Your task to perform on an android device: open app "Instagram" (install if not already installed), go to login, and select forgot password Image 0: 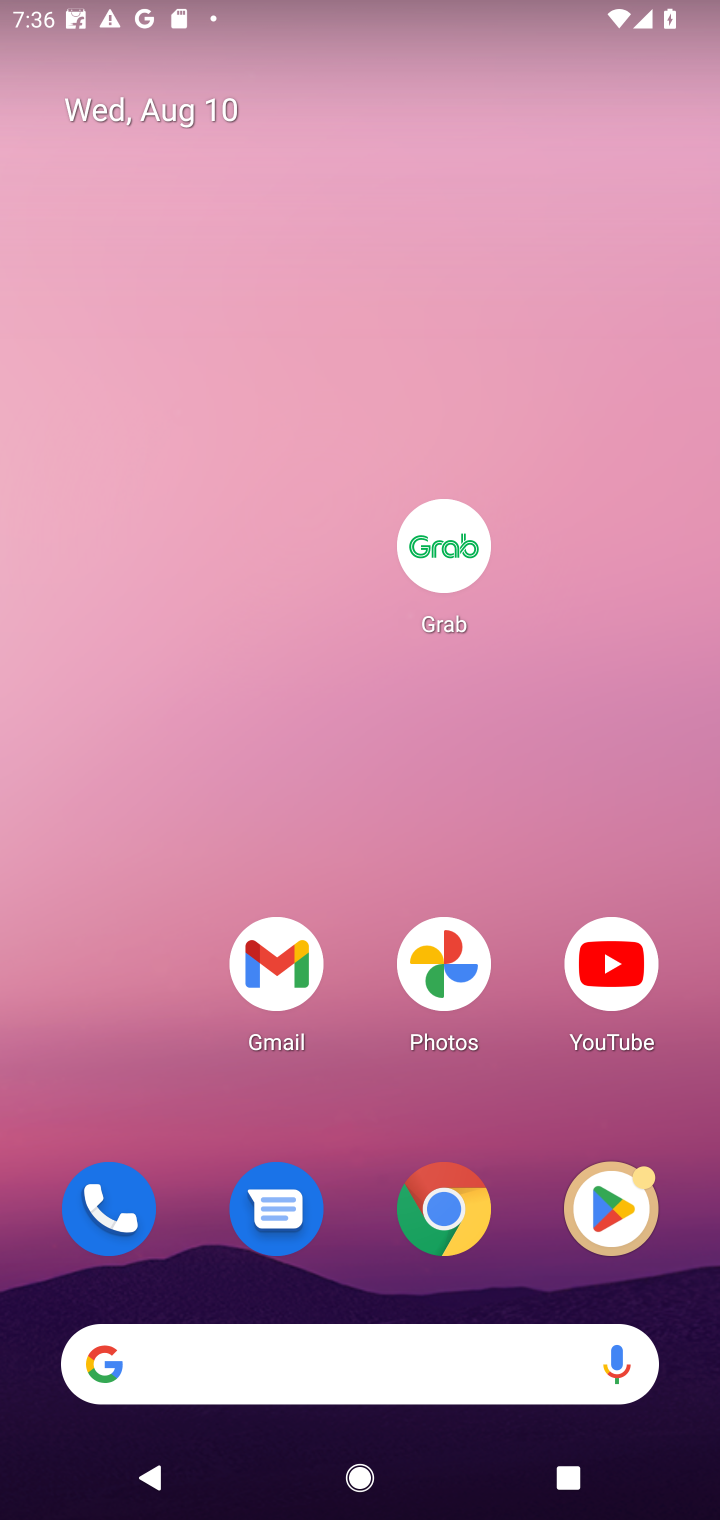
Step 0: drag from (378, 1274) to (400, 173)
Your task to perform on an android device: open app "Instagram" (install if not already installed), go to login, and select forgot password Image 1: 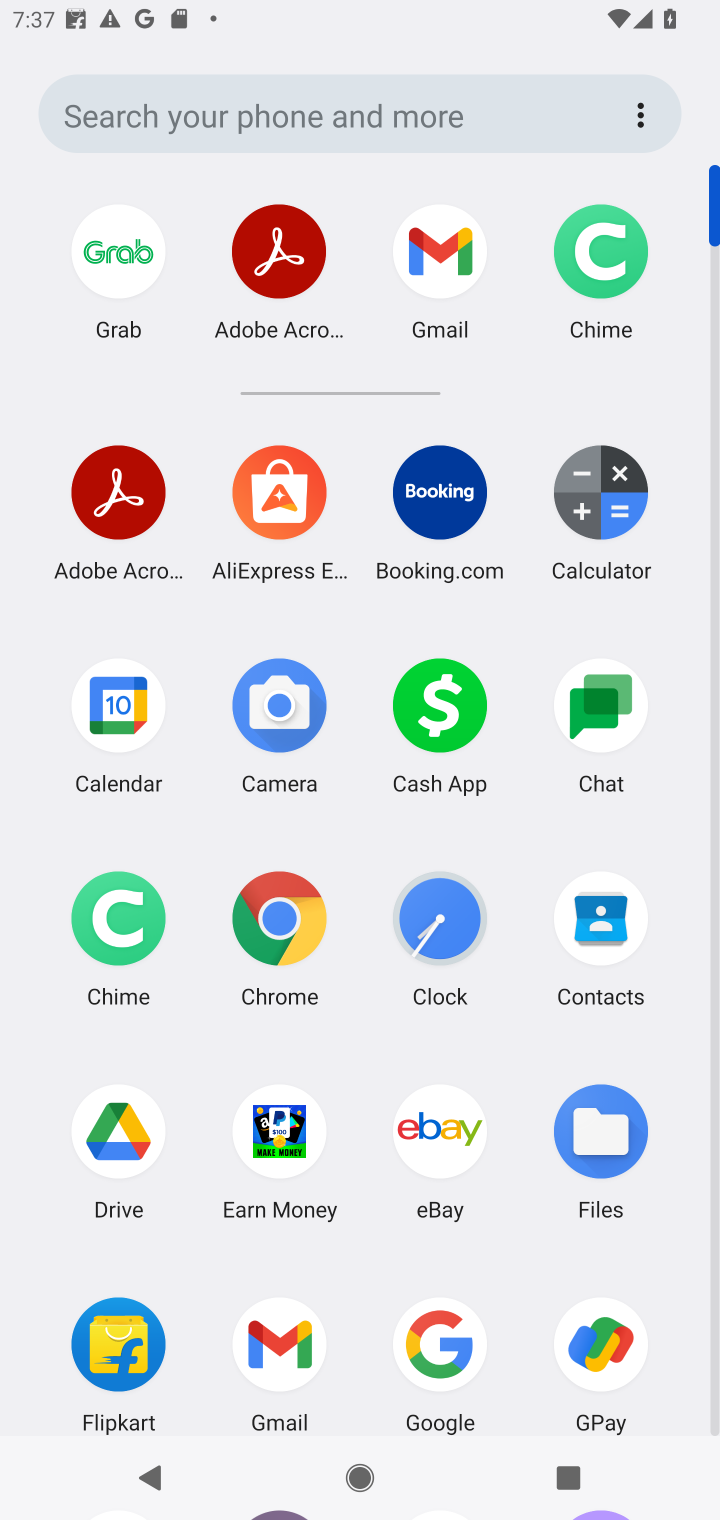
Step 1: click (313, 99)
Your task to perform on an android device: open app "Instagram" (install if not already installed), go to login, and select forgot password Image 2: 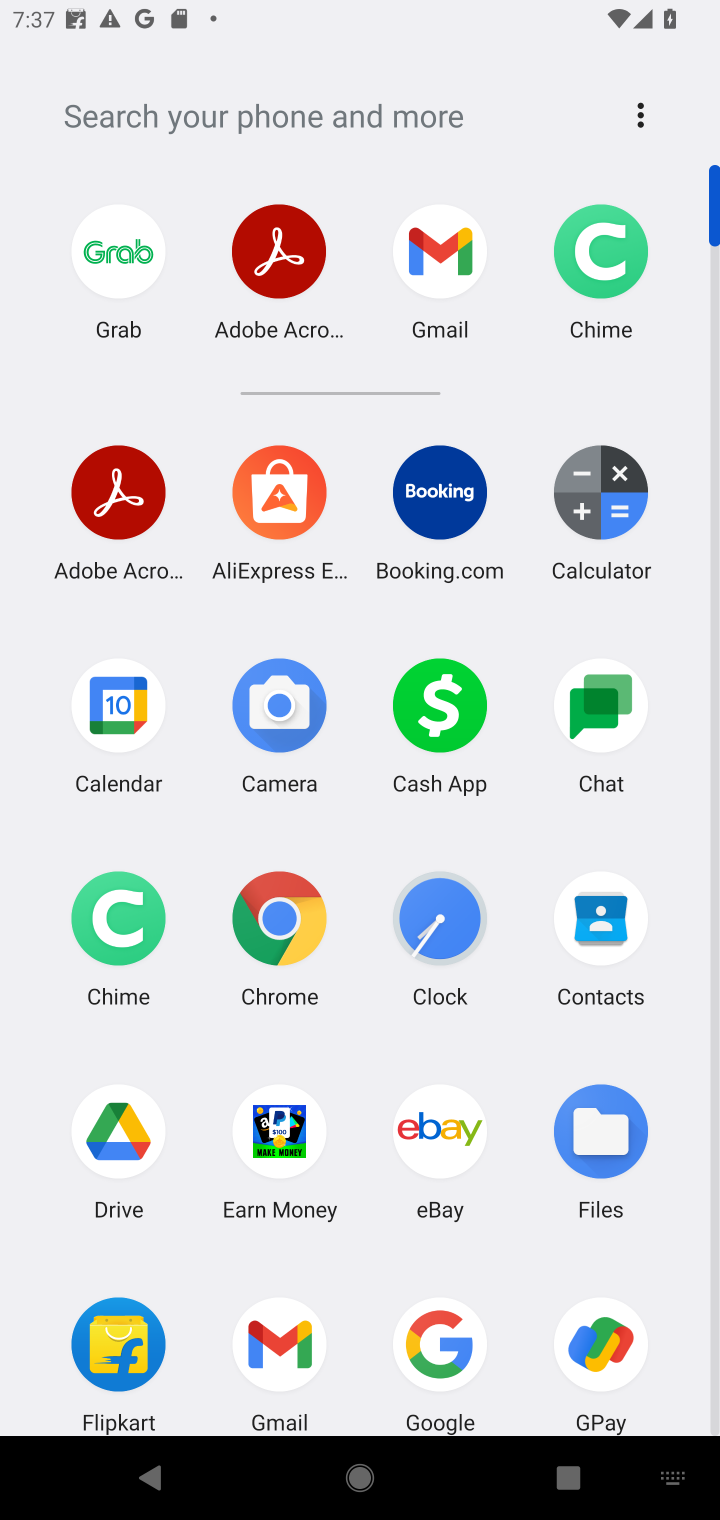
Step 2: press home button
Your task to perform on an android device: open app "Instagram" (install if not already installed), go to login, and select forgot password Image 3: 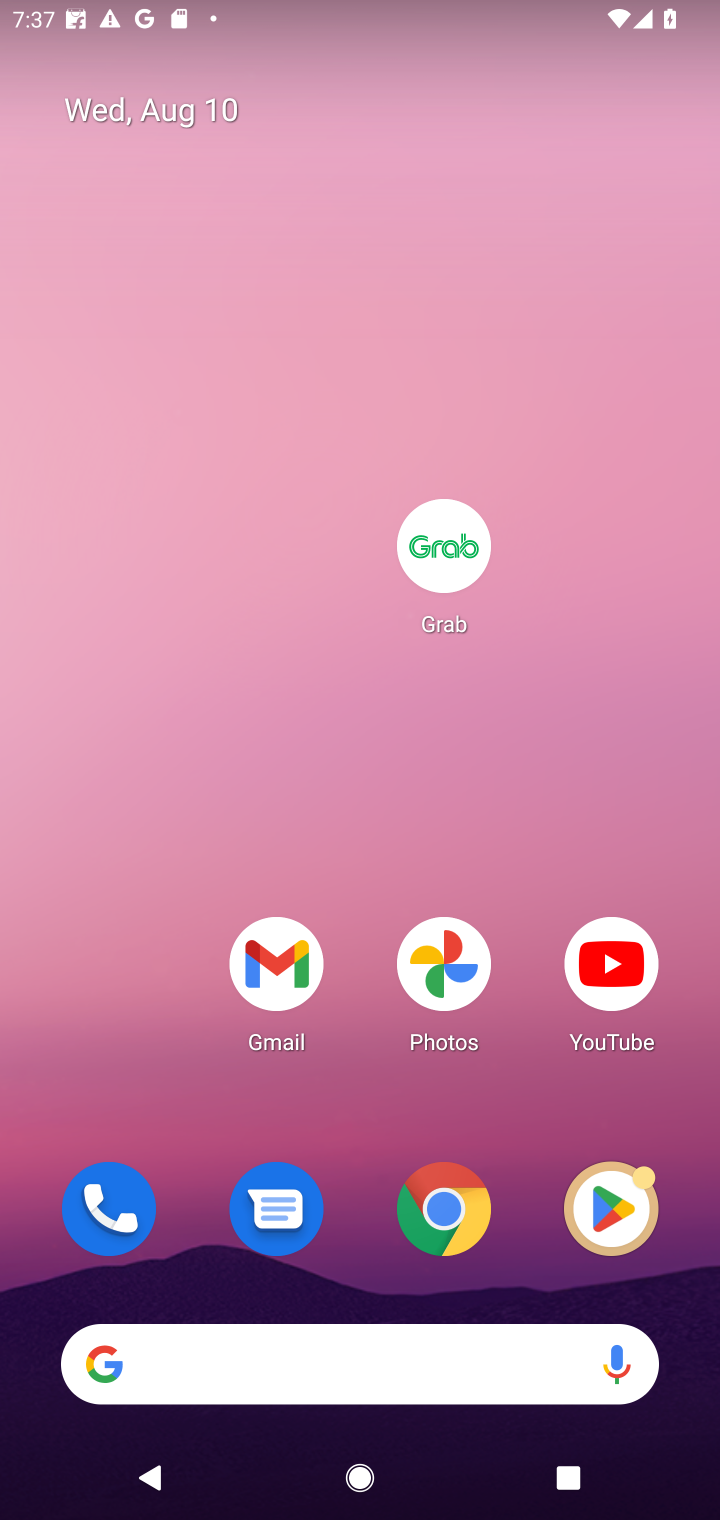
Step 3: click (590, 1215)
Your task to perform on an android device: open app "Instagram" (install if not already installed), go to login, and select forgot password Image 4: 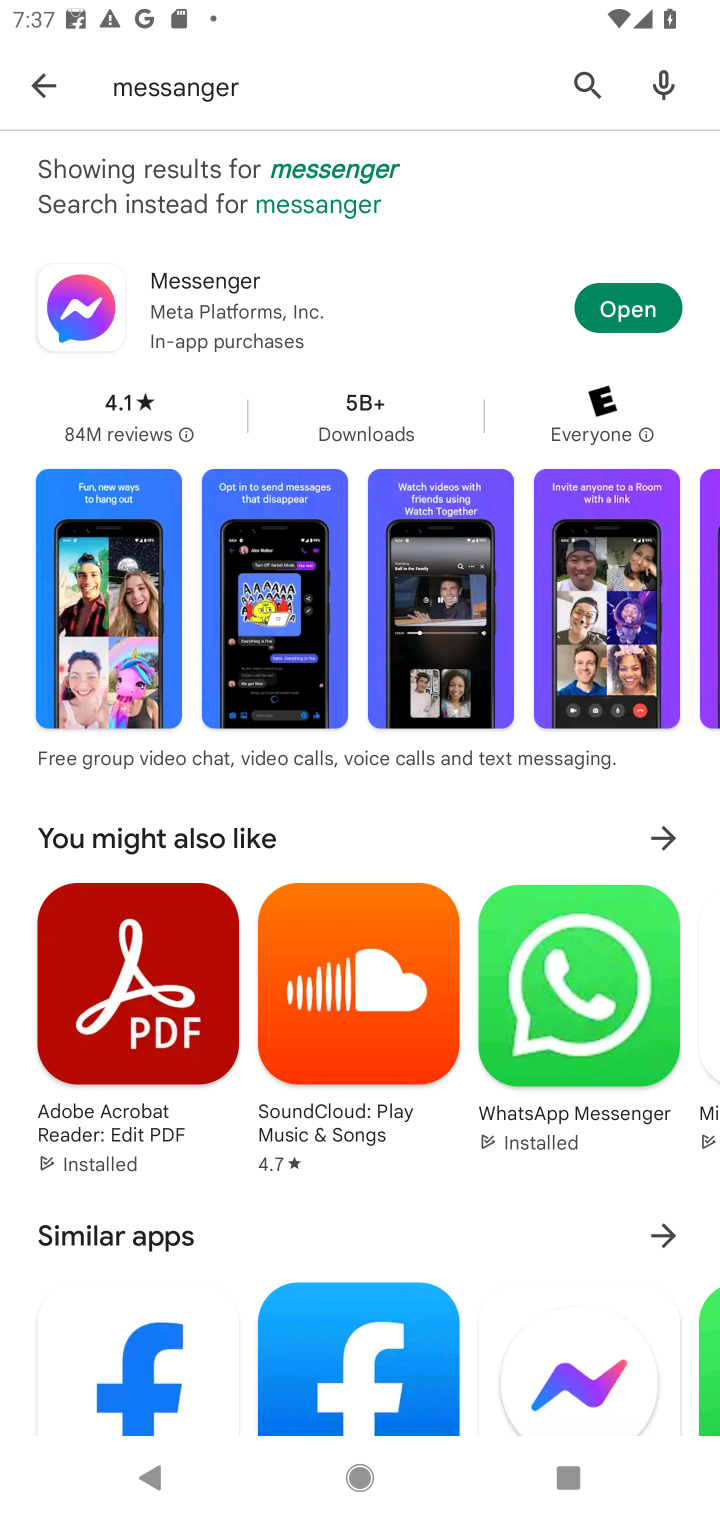
Step 4: click (571, 90)
Your task to perform on an android device: open app "Instagram" (install if not already installed), go to login, and select forgot password Image 5: 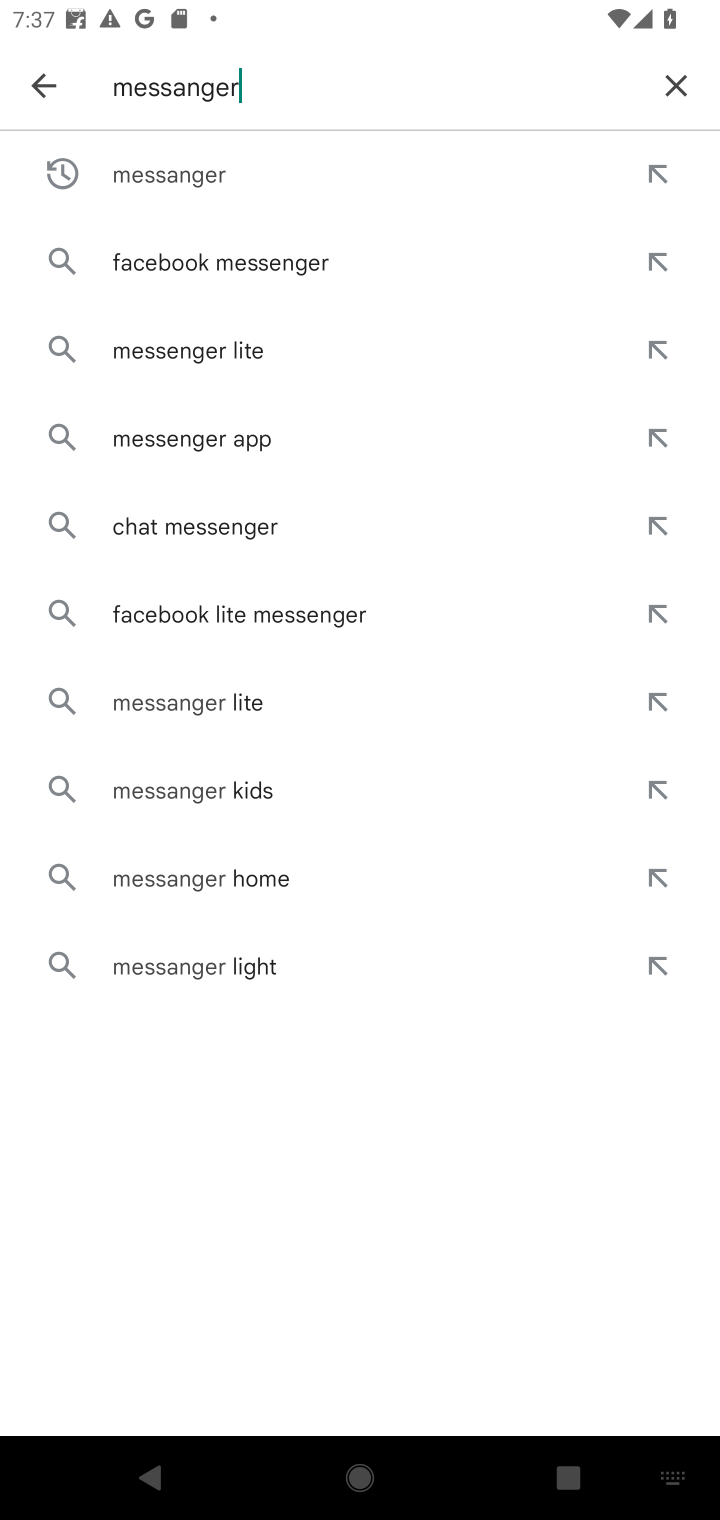
Step 5: click (680, 85)
Your task to perform on an android device: open app "Instagram" (install if not already installed), go to login, and select forgot password Image 6: 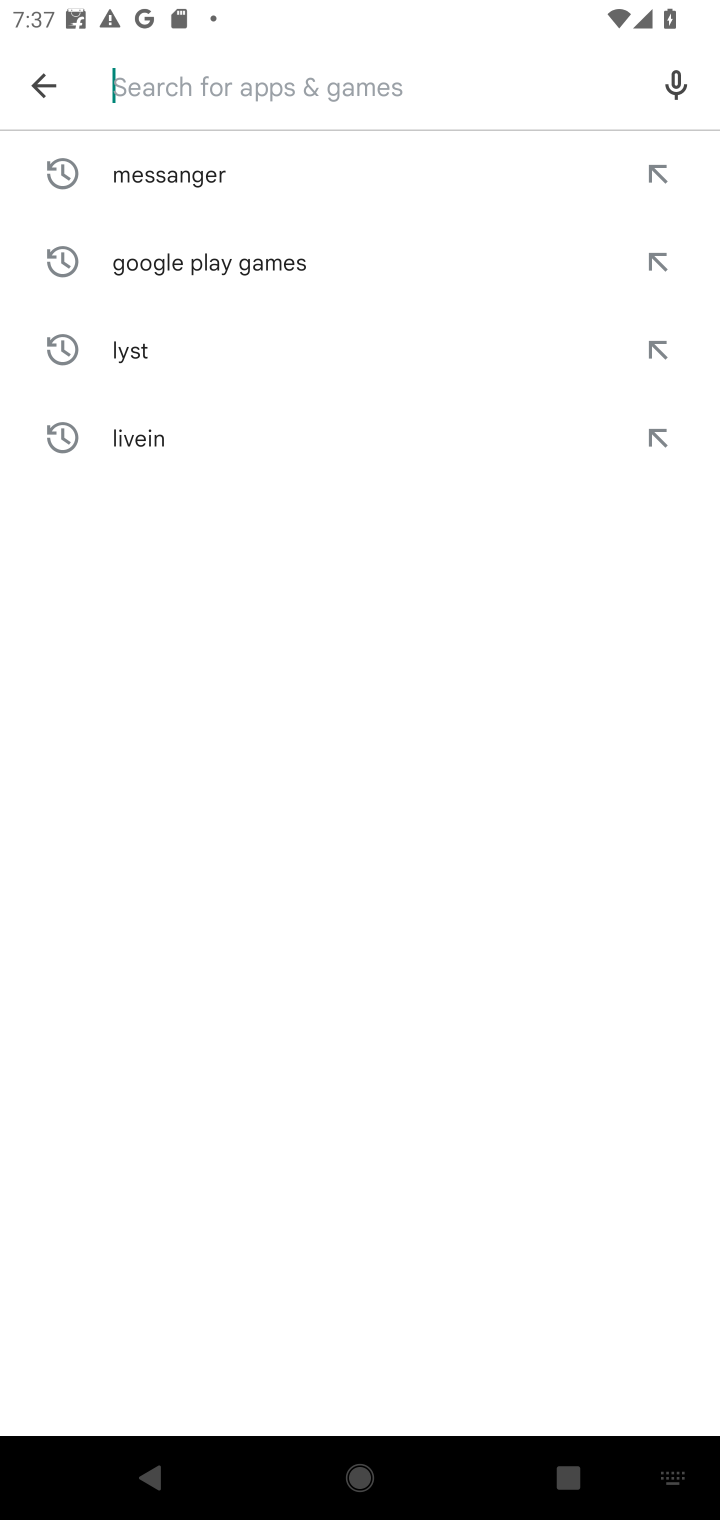
Step 6: type "instagram"
Your task to perform on an android device: open app "Instagram" (install if not already installed), go to login, and select forgot password Image 7: 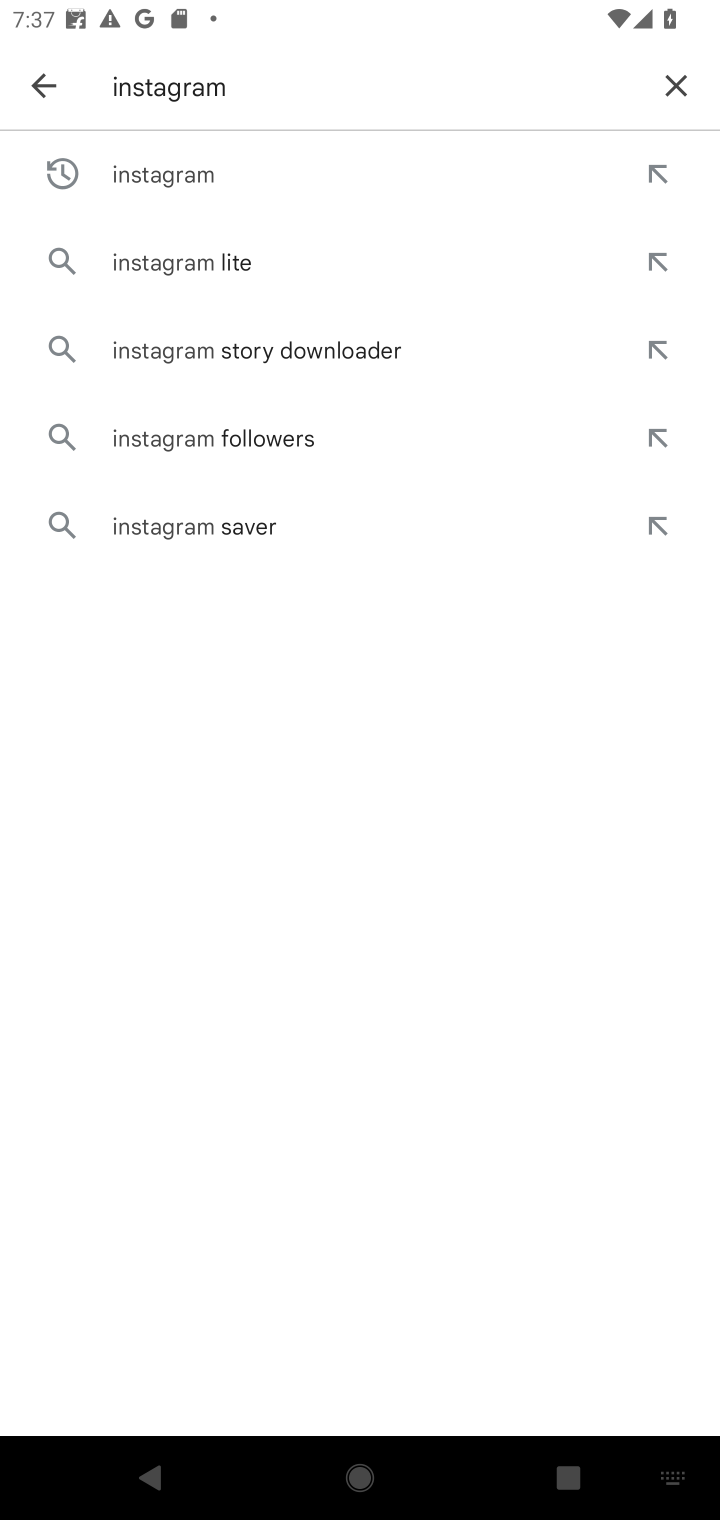
Step 7: click (349, 171)
Your task to perform on an android device: open app "Instagram" (install if not already installed), go to login, and select forgot password Image 8: 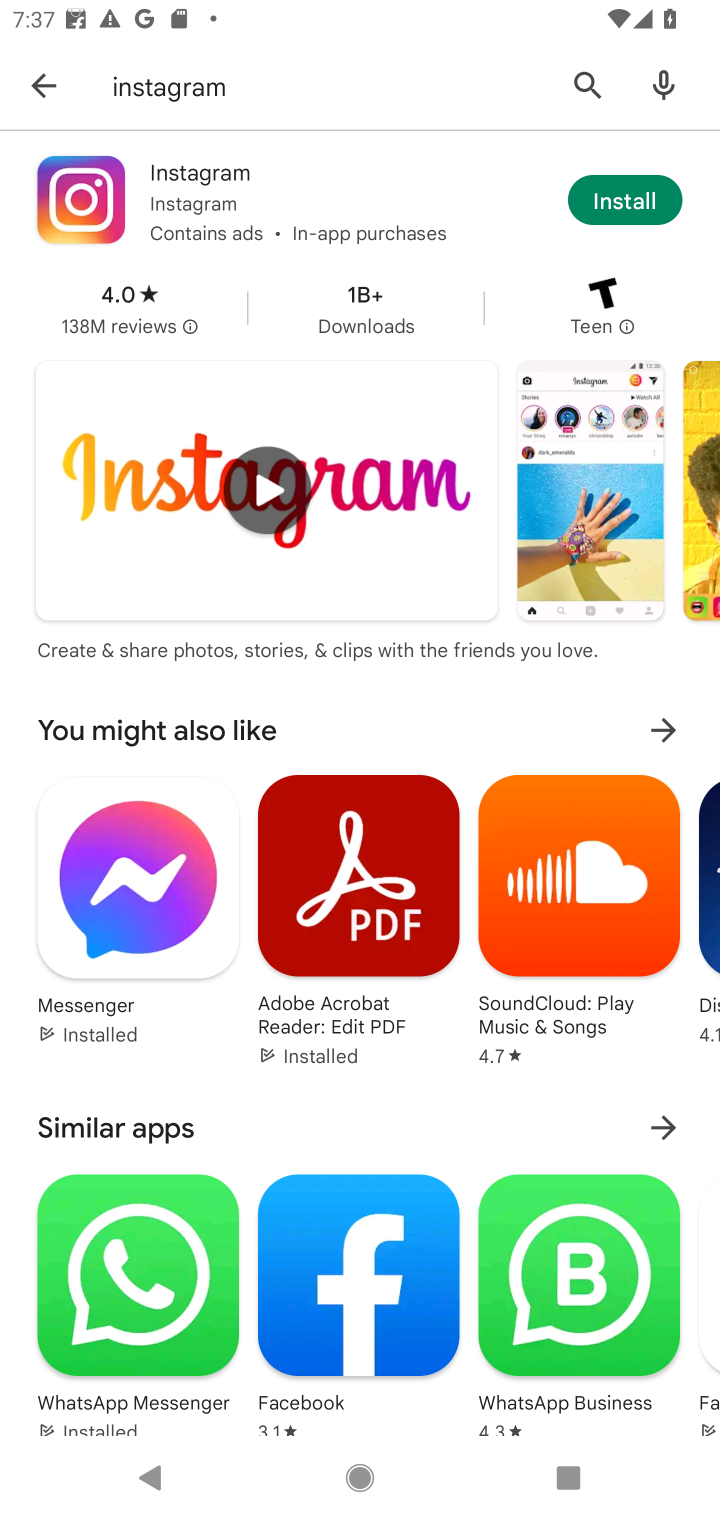
Step 8: click (596, 200)
Your task to perform on an android device: open app "Instagram" (install if not already installed), go to login, and select forgot password Image 9: 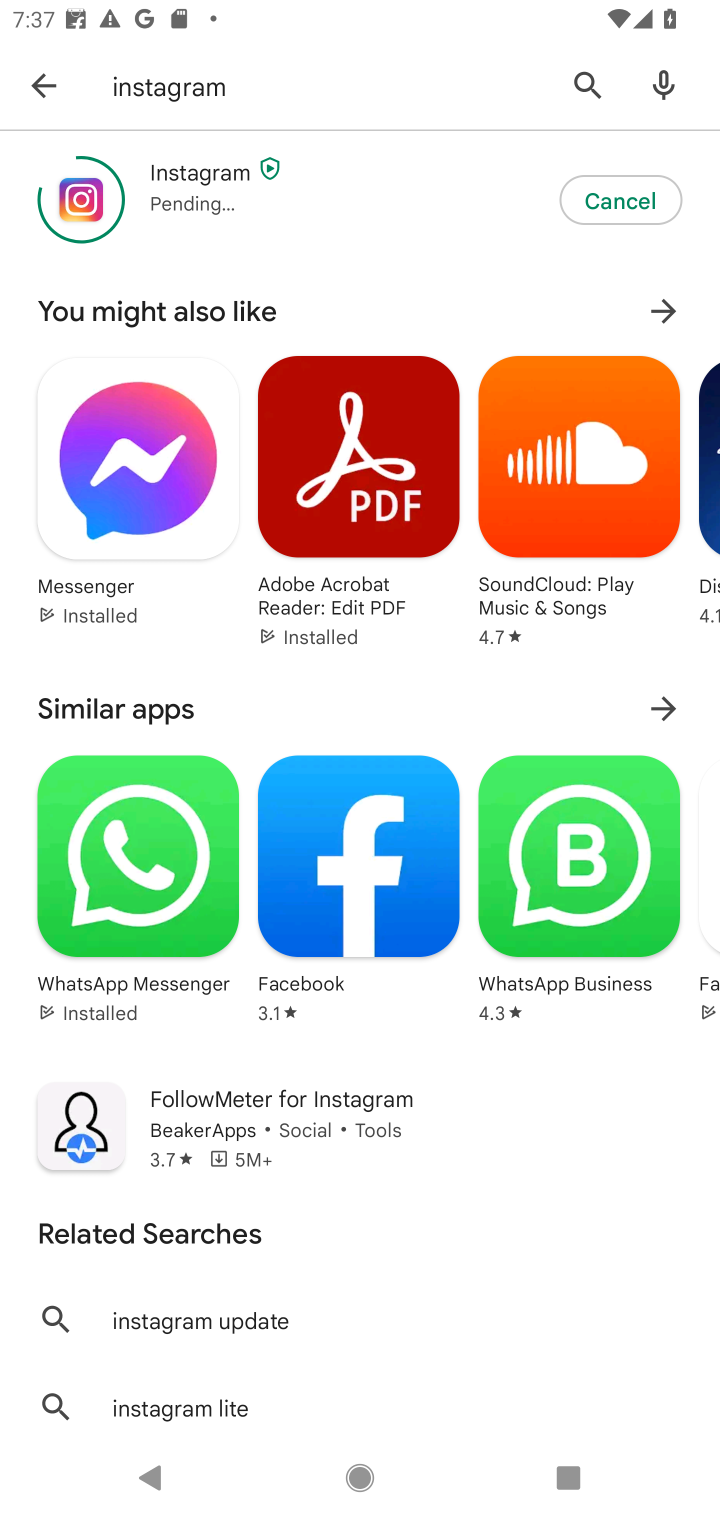
Step 9: task complete